Your task to perform on an android device: turn on translation in the chrome app Image 0: 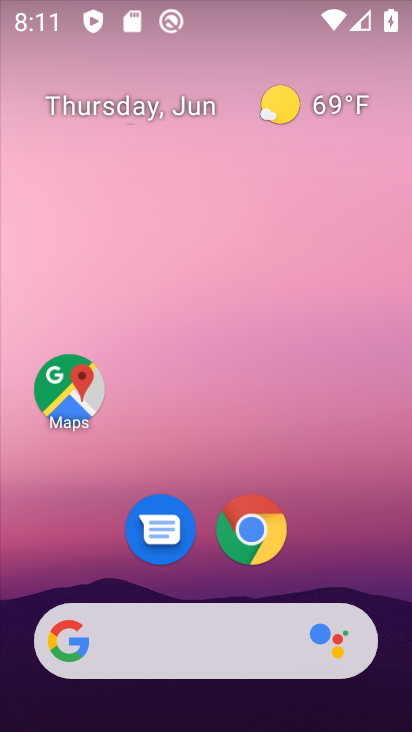
Step 0: click (248, 545)
Your task to perform on an android device: turn on translation in the chrome app Image 1: 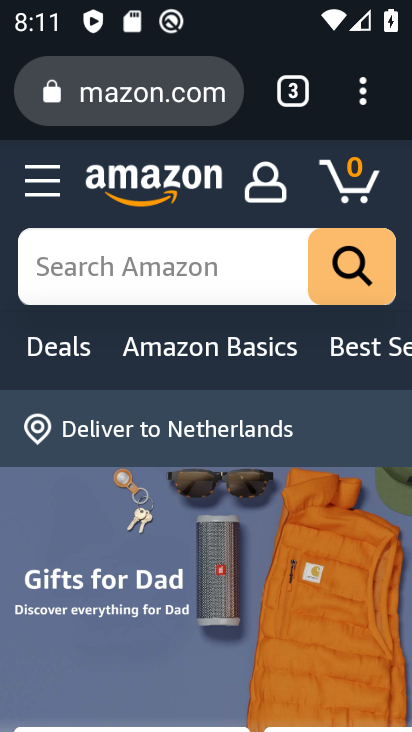
Step 1: click (362, 106)
Your task to perform on an android device: turn on translation in the chrome app Image 2: 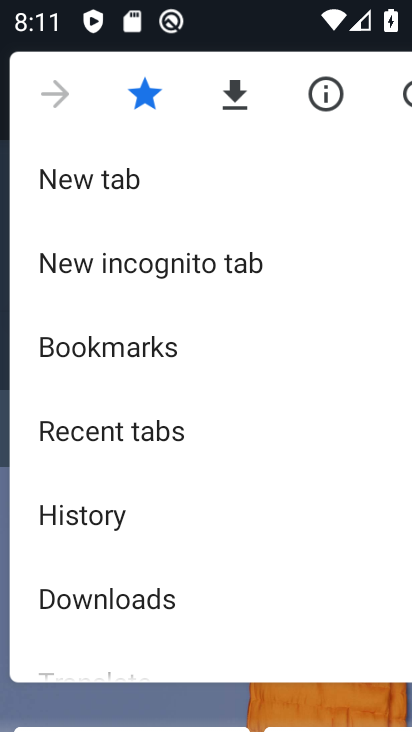
Step 2: drag from (179, 579) to (134, 170)
Your task to perform on an android device: turn on translation in the chrome app Image 3: 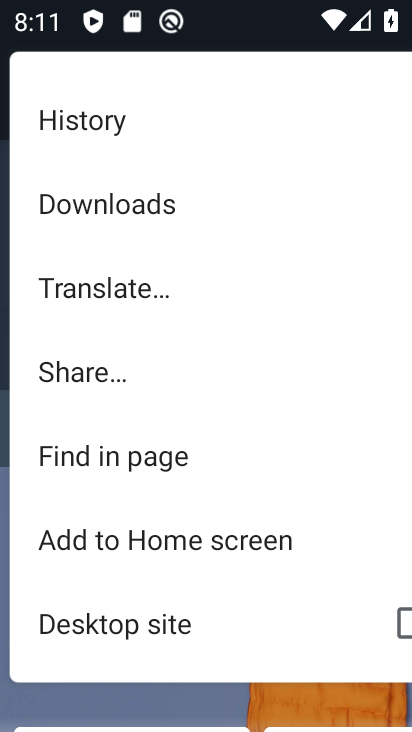
Step 3: drag from (108, 600) to (102, 124)
Your task to perform on an android device: turn on translation in the chrome app Image 4: 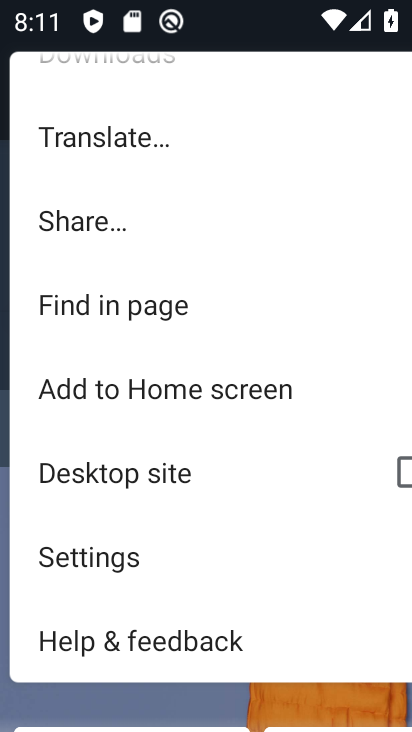
Step 4: click (129, 572)
Your task to perform on an android device: turn on translation in the chrome app Image 5: 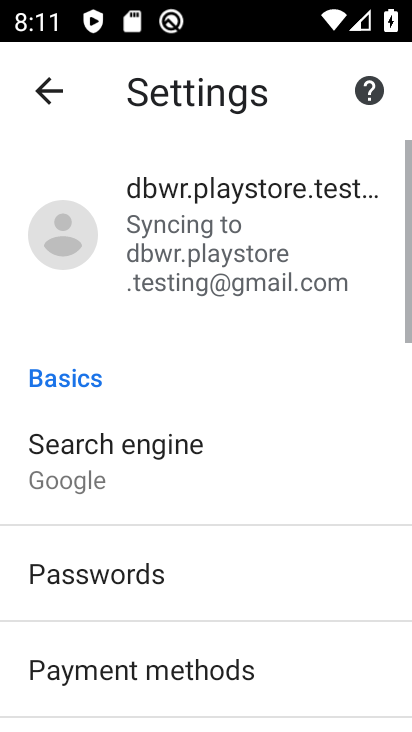
Step 5: drag from (129, 572) to (89, 115)
Your task to perform on an android device: turn on translation in the chrome app Image 6: 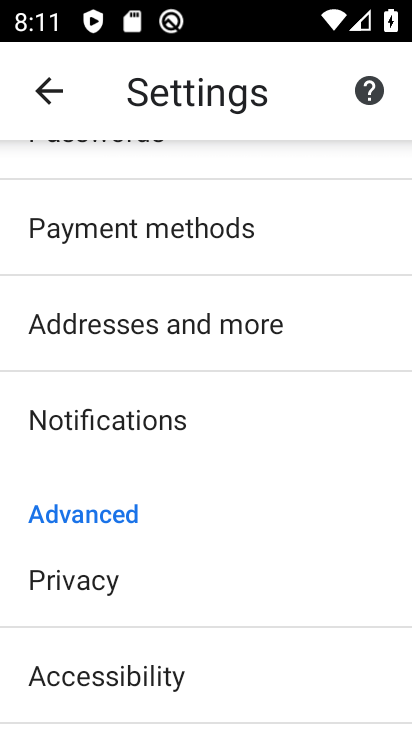
Step 6: drag from (84, 543) to (84, 169)
Your task to perform on an android device: turn on translation in the chrome app Image 7: 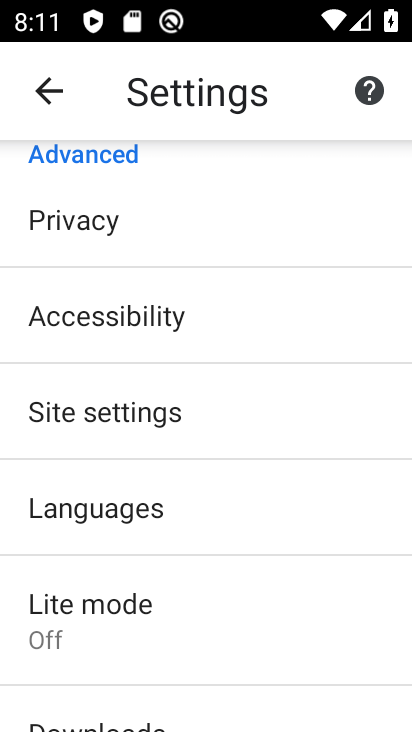
Step 7: click (94, 510)
Your task to perform on an android device: turn on translation in the chrome app Image 8: 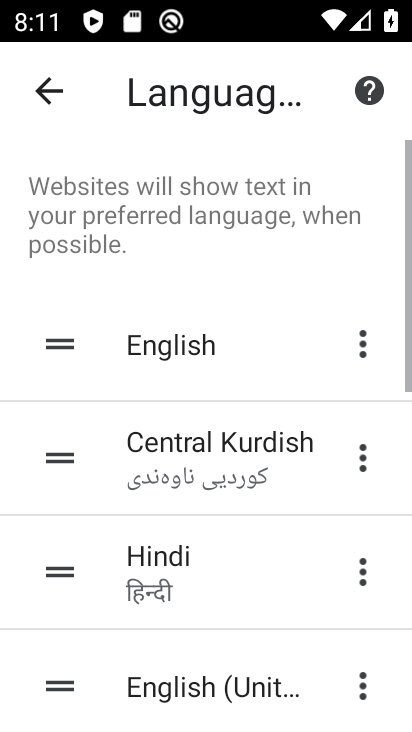
Step 8: drag from (268, 604) to (205, 136)
Your task to perform on an android device: turn on translation in the chrome app Image 9: 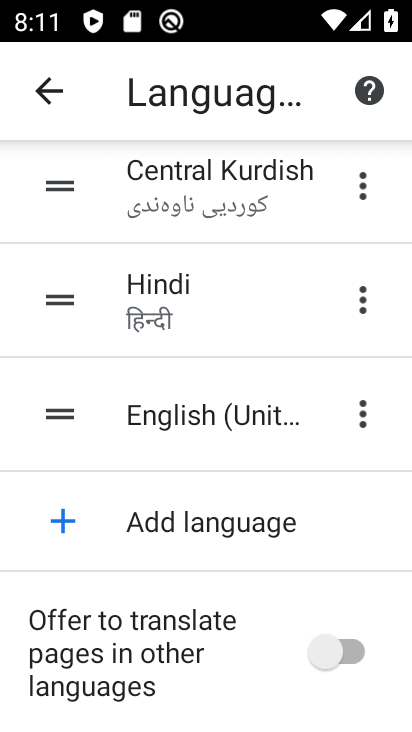
Step 9: click (339, 644)
Your task to perform on an android device: turn on translation in the chrome app Image 10: 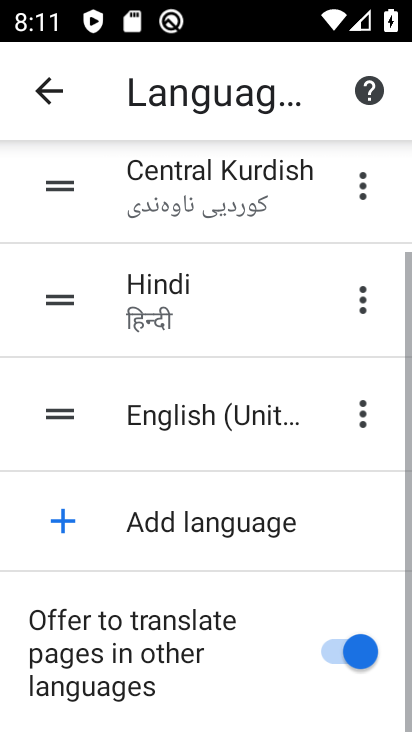
Step 10: task complete